Your task to perform on an android device: Turn on the flashlight Image 0: 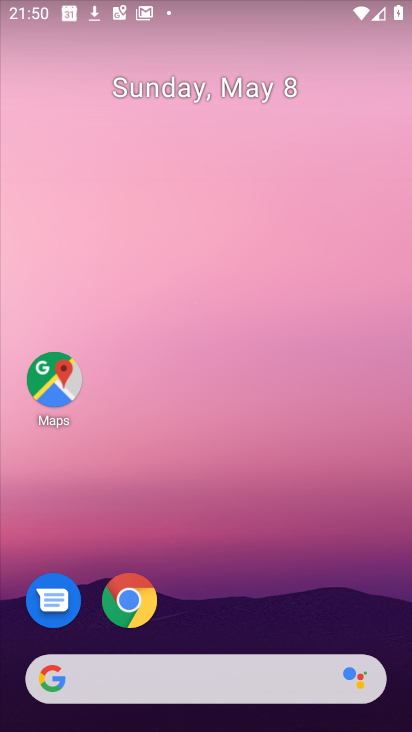
Step 0: drag from (335, 685) to (216, 400)
Your task to perform on an android device: Turn on the flashlight Image 1: 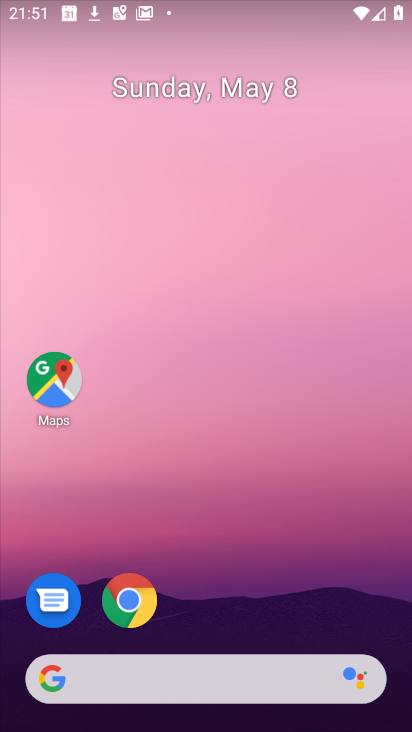
Step 1: drag from (280, 706) to (198, 189)
Your task to perform on an android device: Turn on the flashlight Image 2: 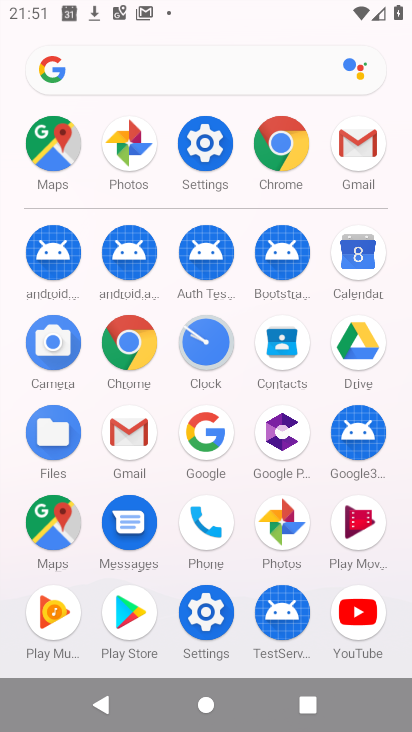
Step 2: click (208, 161)
Your task to perform on an android device: Turn on the flashlight Image 3: 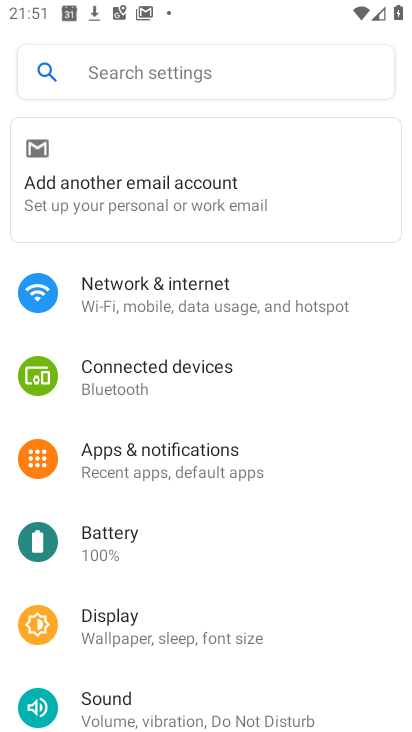
Step 3: click (170, 81)
Your task to perform on an android device: Turn on the flashlight Image 4: 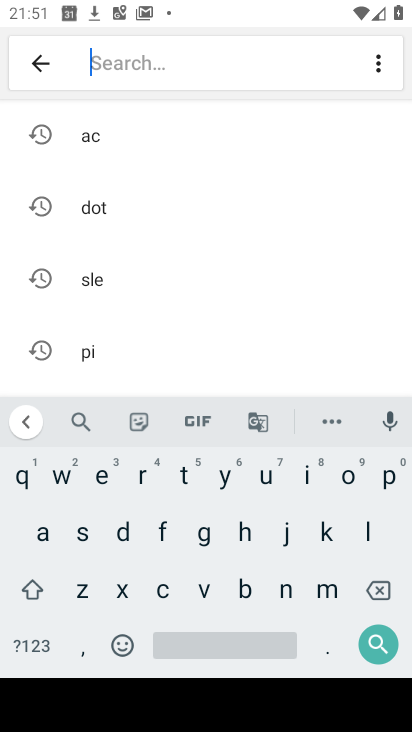
Step 4: click (165, 529)
Your task to perform on an android device: Turn on the flashlight Image 5: 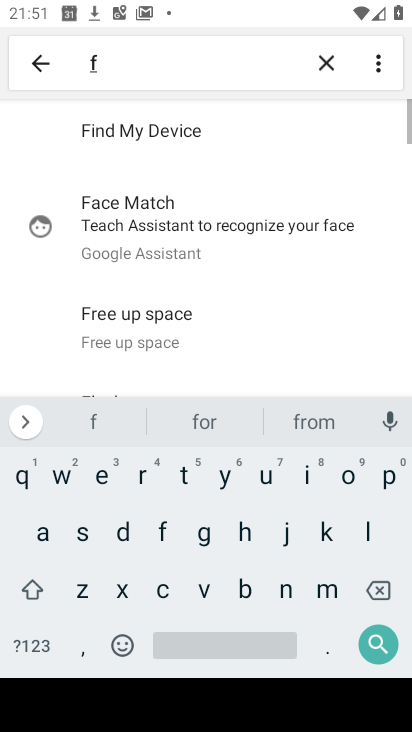
Step 5: click (369, 539)
Your task to perform on an android device: Turn on the flashlight Image 6: 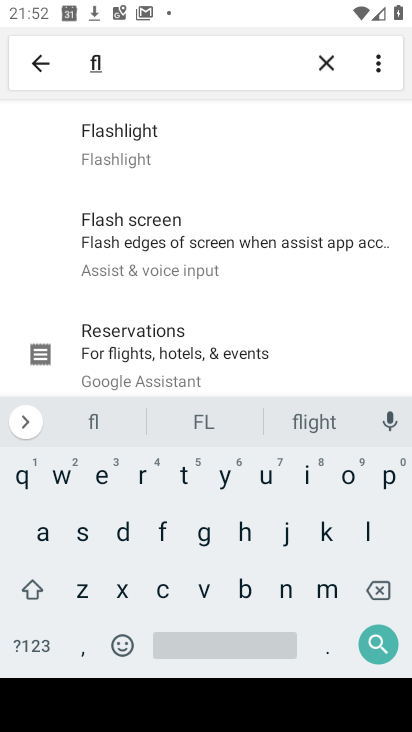
Step 6: click (171, 147)
Your task to perform on an android device: Turn on the flashlight Image 7: 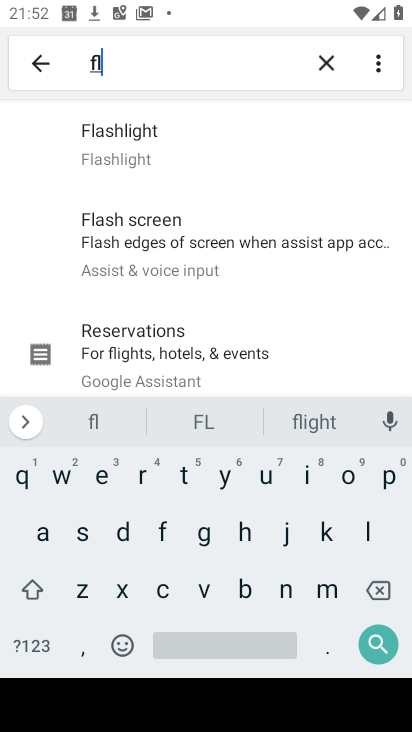
Step 7: click (194, 136)
Your task to perform on an android device: Turn on the flashlight Image 8: 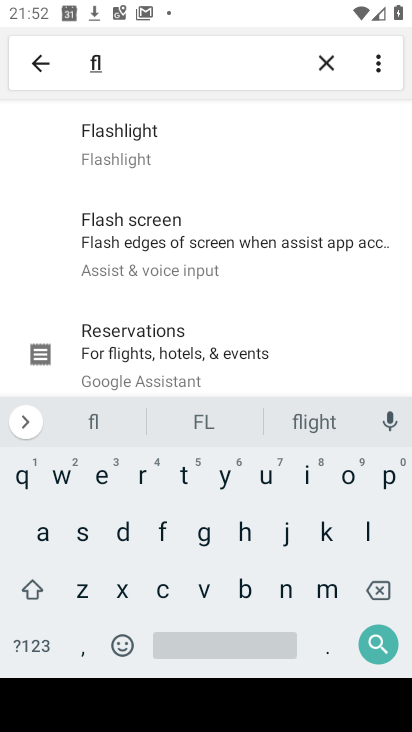
Step 8: task complete